Your task to perform on an android device: Open Maps and search for coffee Image 0: 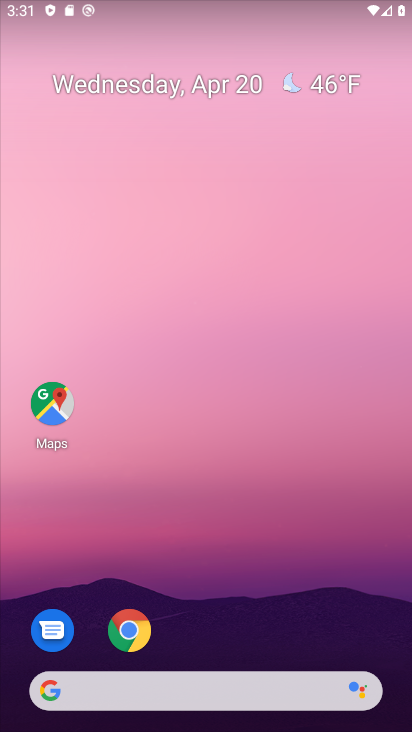
Step 0: click (45, 406)
Your task to perform on an android device: Open Maps and search for coffee Image 1: 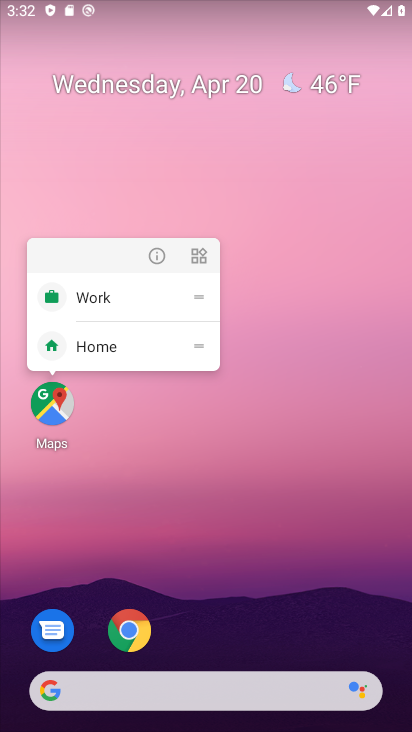
Step 1: click (47, 400)
Your task to perform on an android device: Open Maps and search for coffee Image 2: 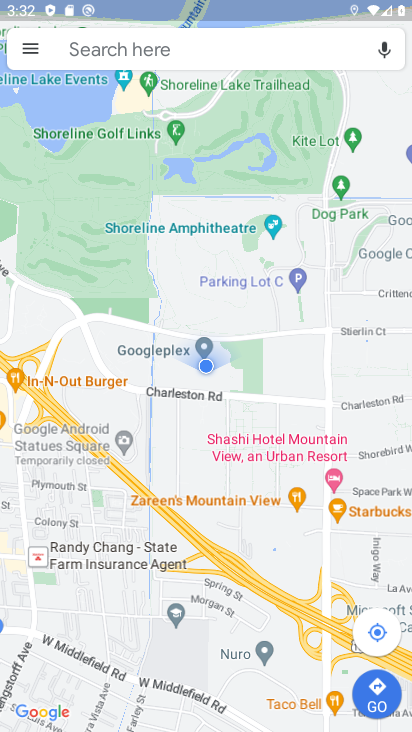
Step 2: click (114, 53)
Your task to perform on an android device: Open Maps and search for coffee Image 3: 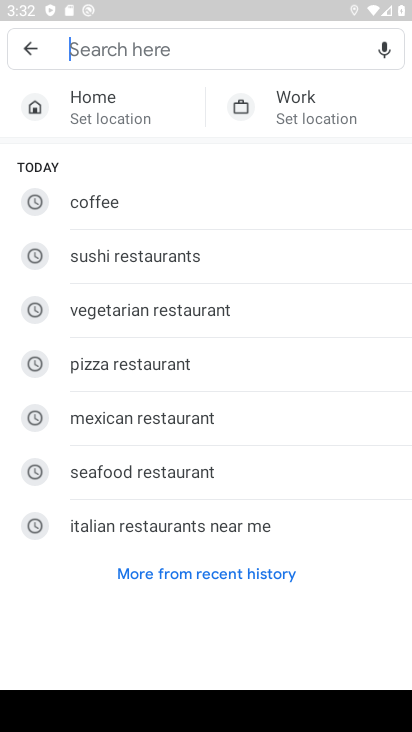
Step 3: type "coffee"
Your task to perform on an android device: Open Maps and search for coffee Image 4: 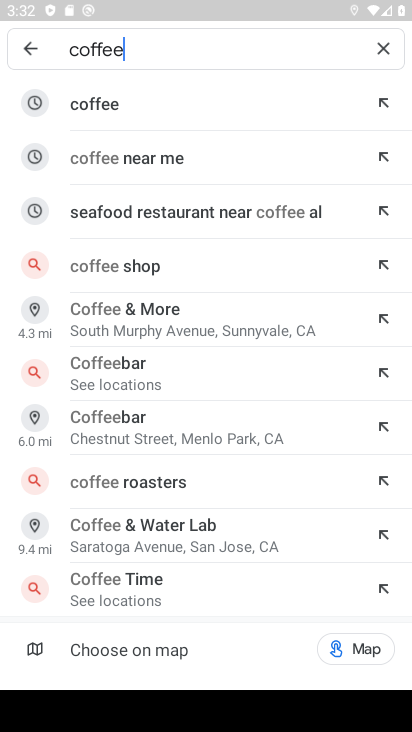
Step 4: click (73, 103)
Your task to perform on an android device: Open Maps and search for coffee Image 5: 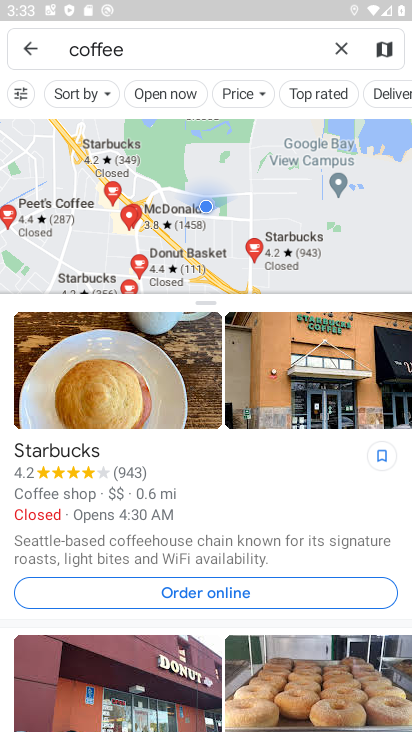
Step 5: task complete